Your task to perform on an android device: Open the phone app and click the voicemail tab. Image 0: 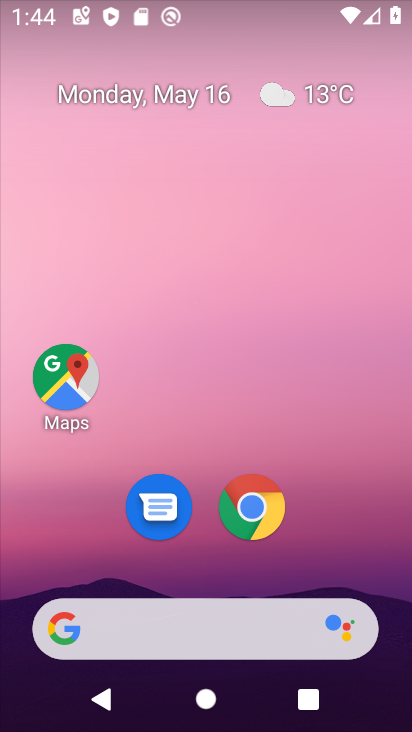
Step 0: drag from (368, 535) to (379, 75)
Your task to perform on an android device: Open the phone app and click the voicemail tab. Image 1: 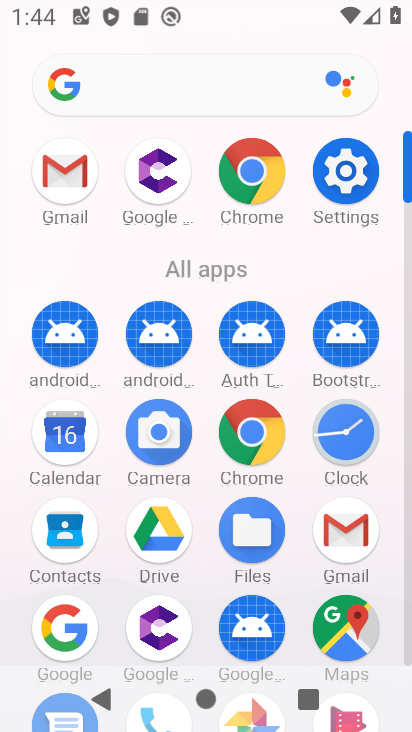
Step 1: drag from (206, 589) to (197, 156)
Your task to perform on an android device: Open the phone app and click the voicemail tab. Image 2: 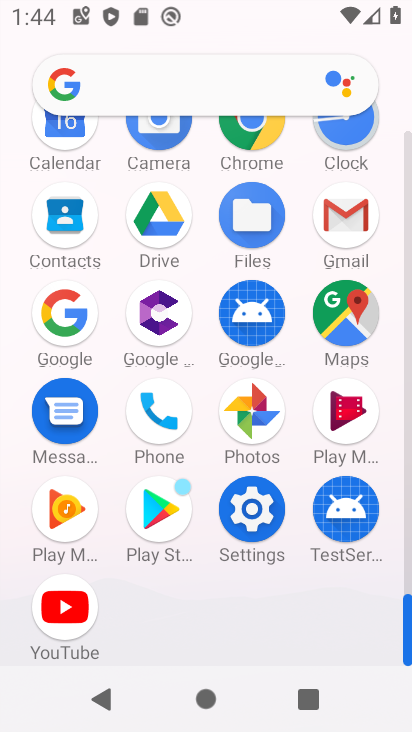
Step 2: click (159, 409)
Your task to perform on an android device: Open the phone app and click the voicemail tab. Image 3: 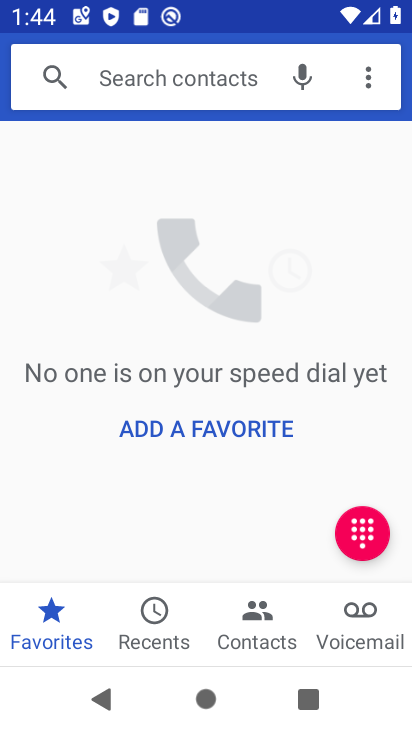
Step 3: click (352, 631)
Your task to perform on an android device: Open the phone app and click the voicemail tab. Image 4: 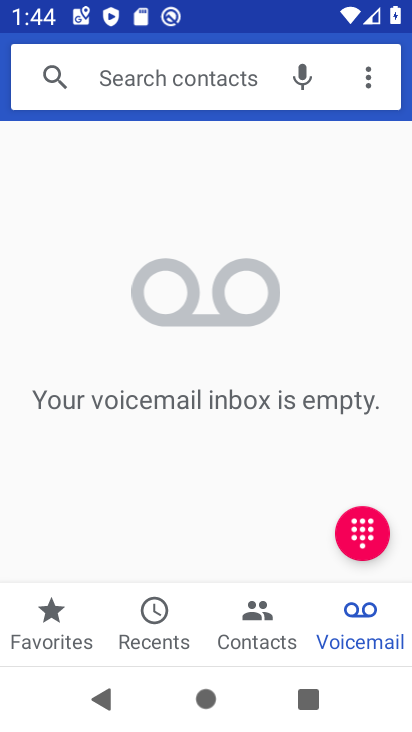
Step 4: task complete